Your task to perform on an android device: Show me popular games on the Play Store Image 0: 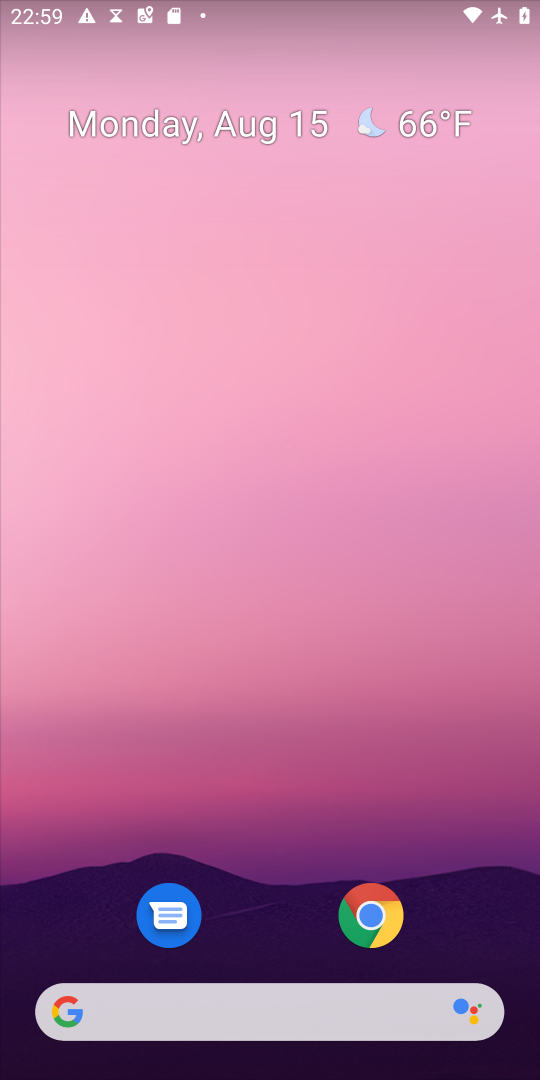
Step 0: press home button
Your task to perform on an android device: Show me popular games on the Play Store Image 1: 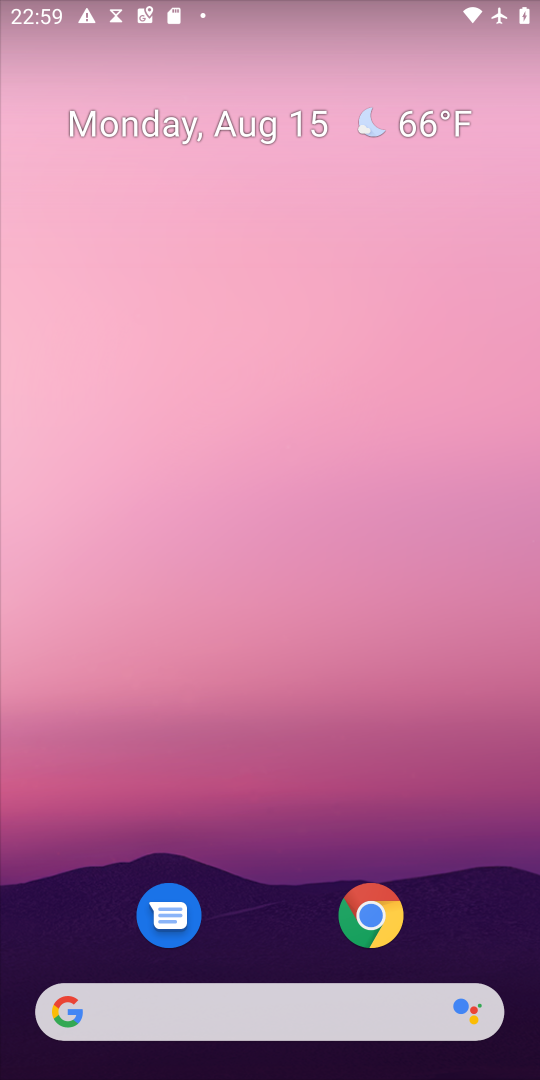
Step 1: drag from (336, 886) to (426, 69)
Your task to perform on an android device: Show me popular games on the Play Store Image 2: 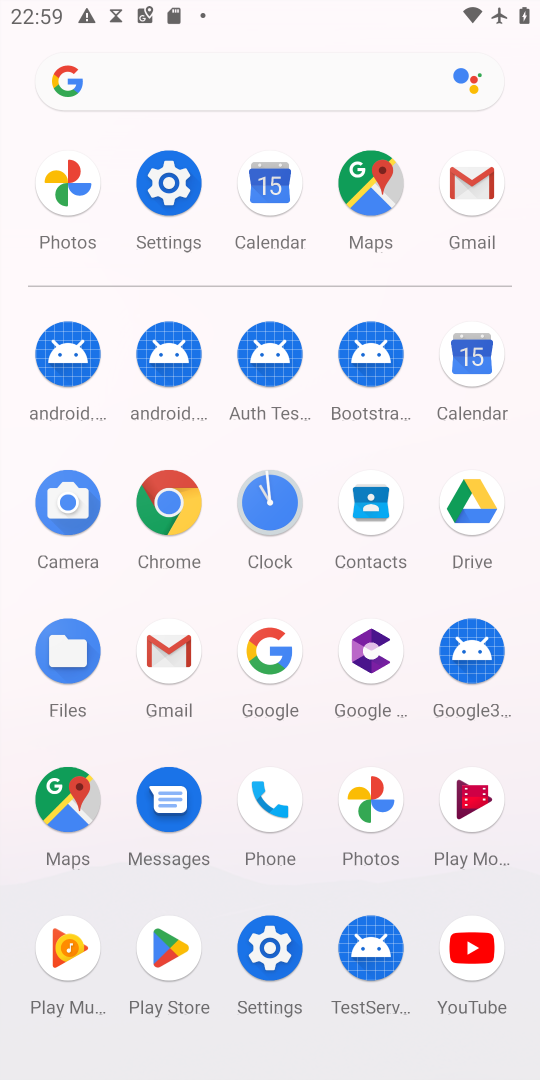
Step 2: click (161, 952)
Your task to perform on an android device: Show me popular games on the Play Store Image 3: 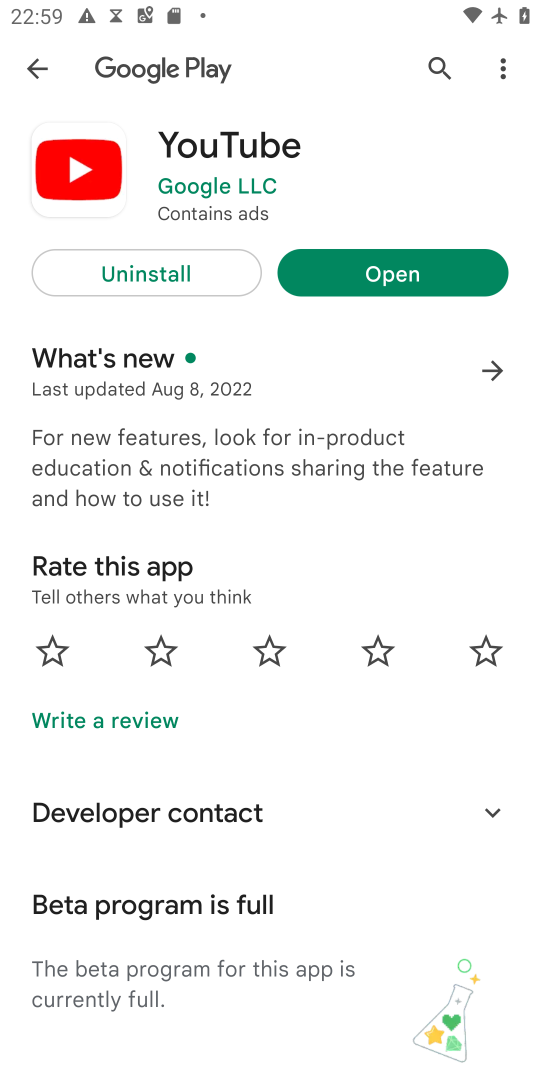
Step 3: press back button
Your task to perform on an android device: Show me popular games on the Play Store Image 4: 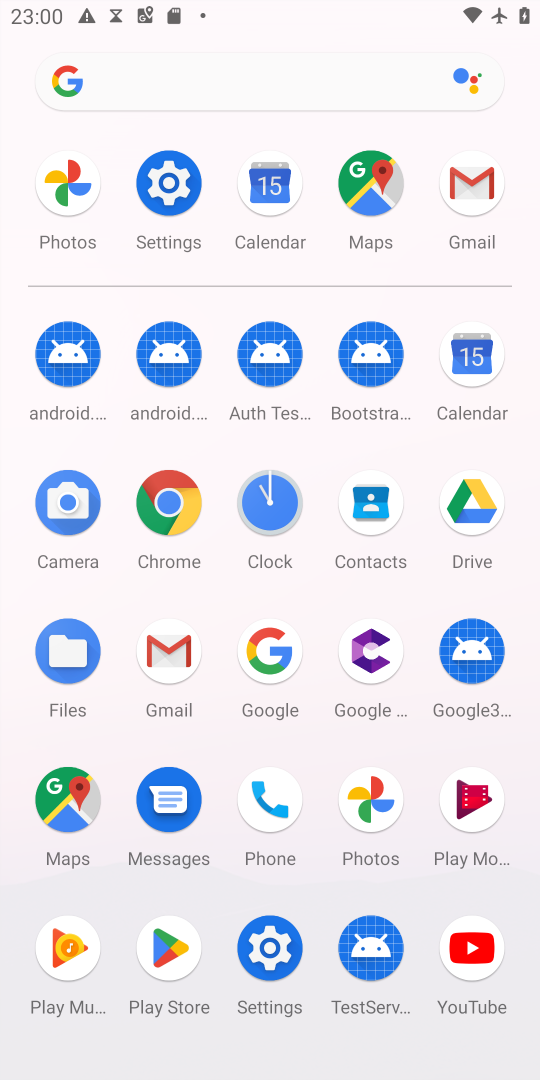
Step 4: click (167, 954)
Your task to perform on an android device: Show me popular games on the Play Store Image 5: 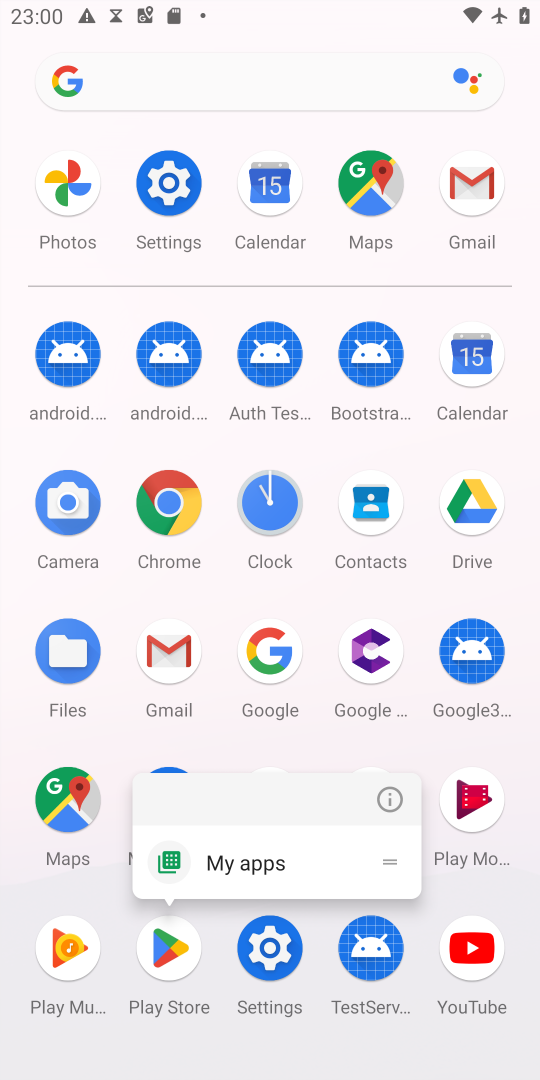
Step 5: click (165, 964)
Your task to perform on an android device: Show me popular games on the Play Store Image 6: 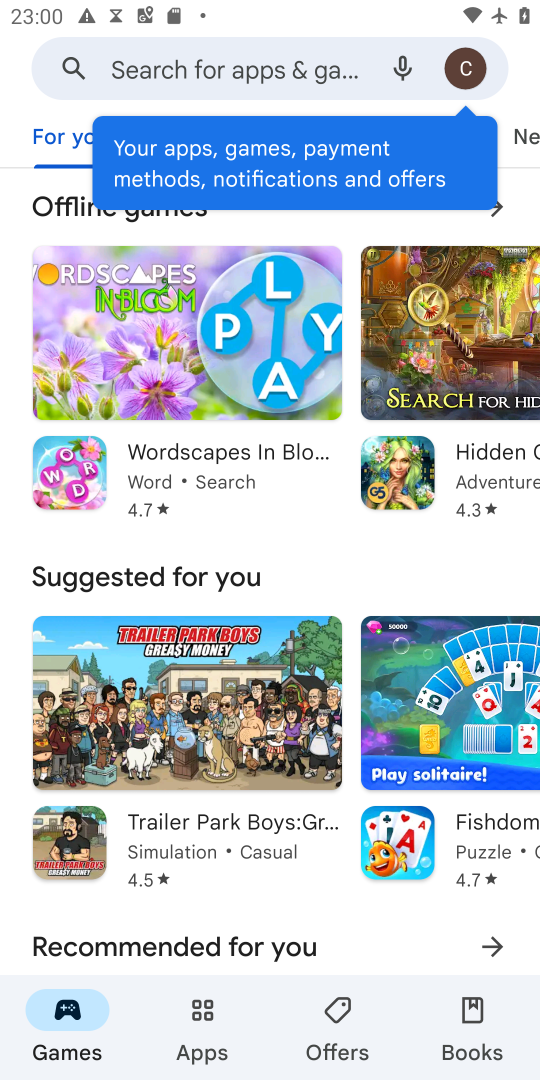
Step 6: click (213, 1003)
Your task to perform on an android device: Show me popular games on the Play Store Image 7: 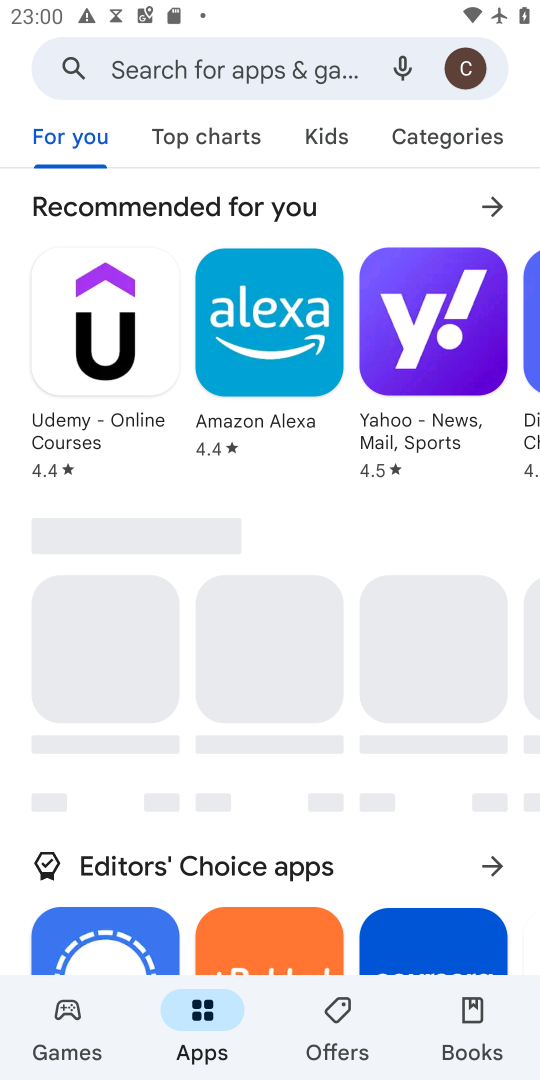
Step 7: click (79, 1007)
Your task to perform on an android device: Show me popular games on the Play Store Image 8: 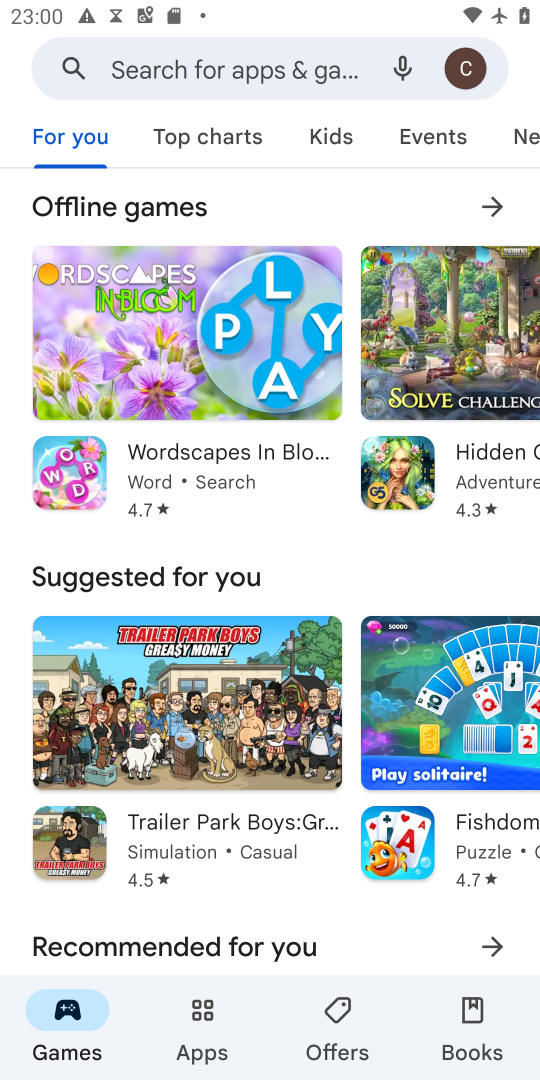
Step 8: drag from (480, 135) to (94, 145)
Your task to perform on an android device: Show me popular games on the Play Store Image 9: 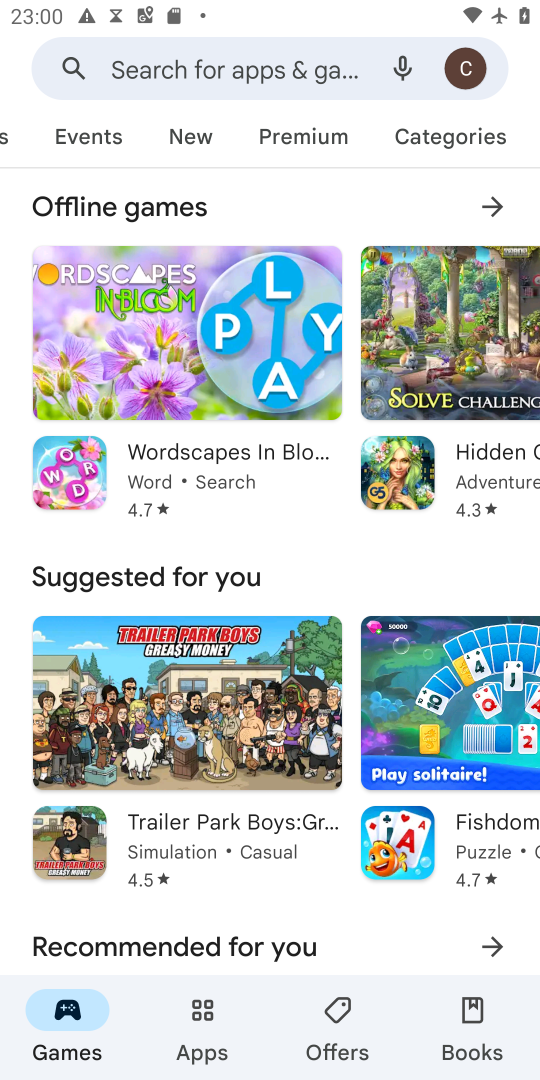
Step 9: click (443, 139)
Your task to perform on an android device: Show me popular games on the Play Store Image 10: 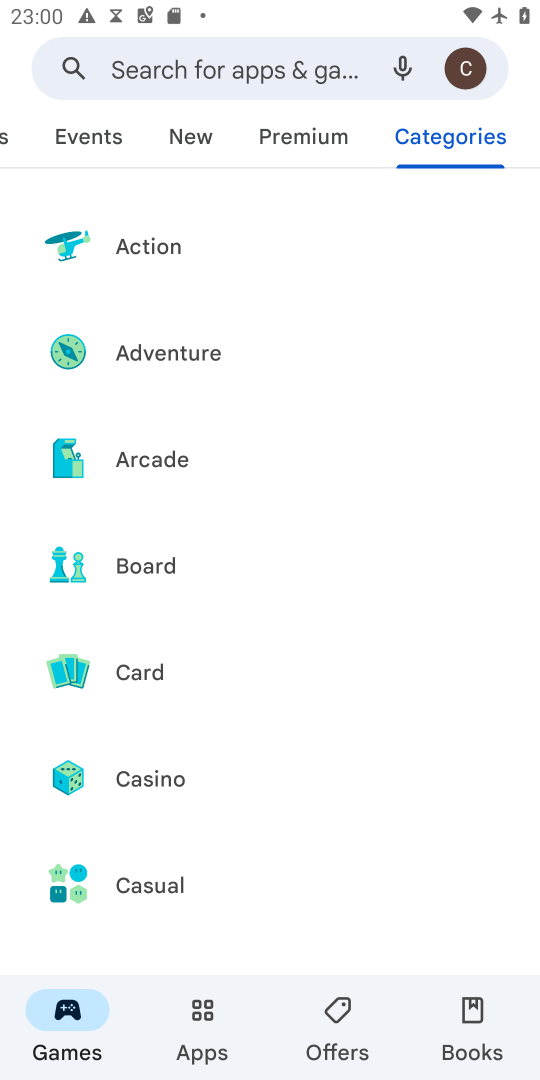
Step 10: task complete